Your task to perform on an android device: Go to battery settings Image 0: 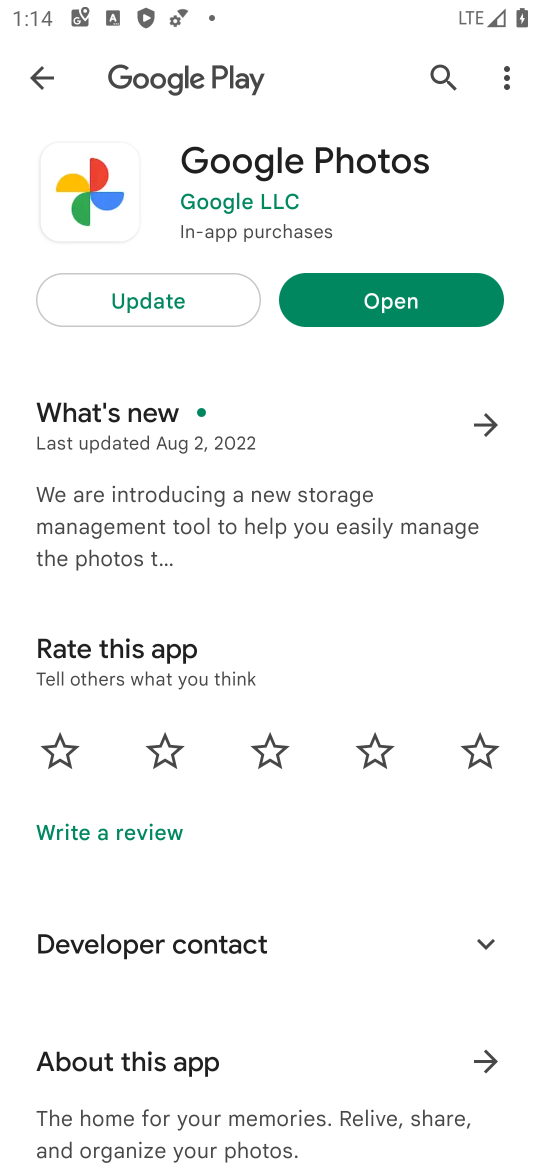
Step 0: press home button
Your task to perform on an android device: Go to battery settings Image 1: 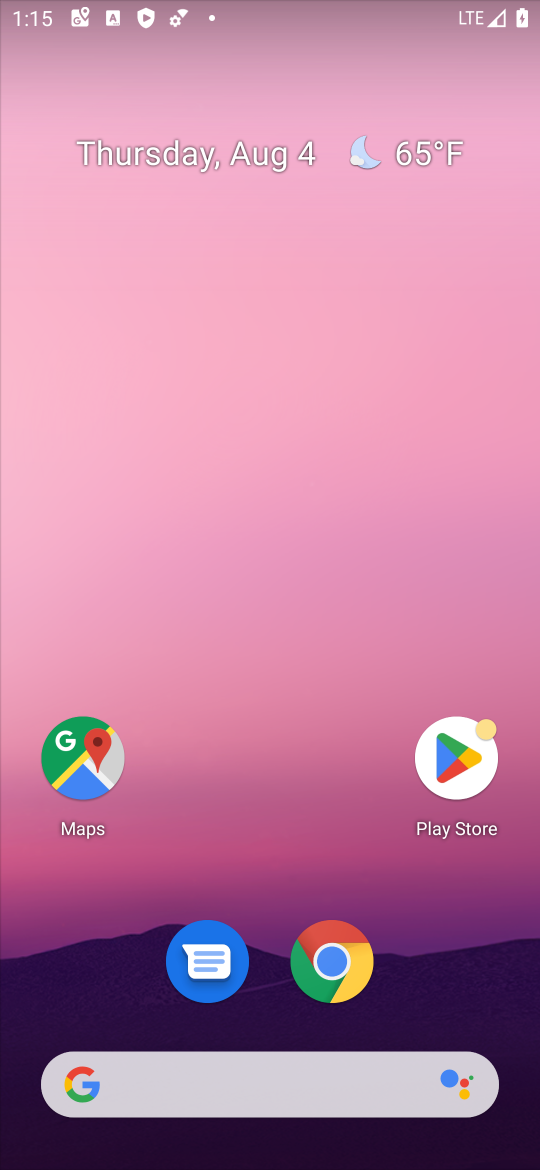
Step 1: drag from (309, 545) to (337, 0)
Your task to perform on an android device: Go to battery settings Image 2: 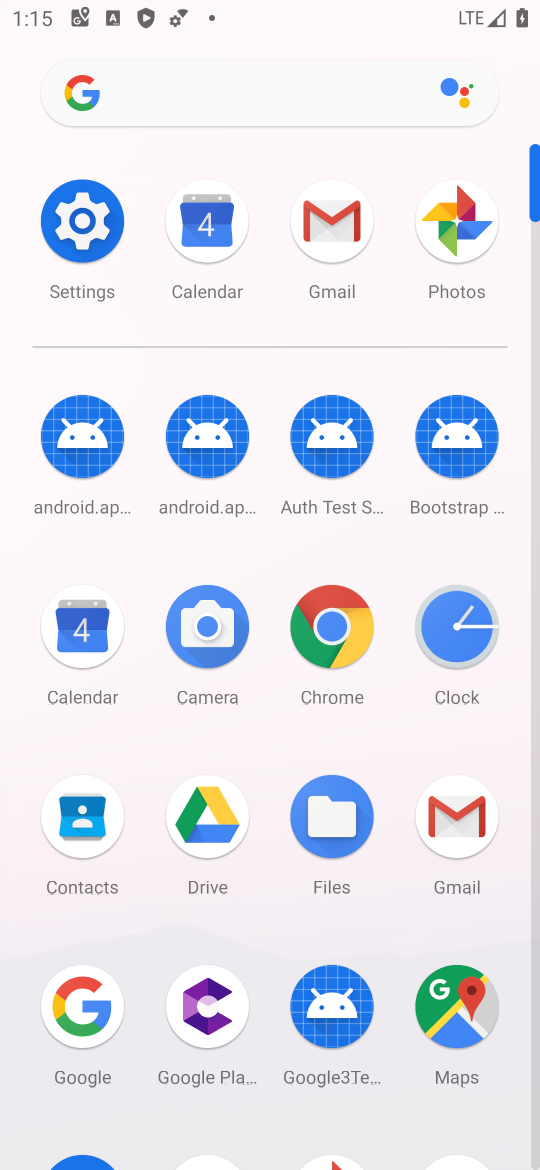
Step 2: click (92, 233)
Your task to perform on an android device: Go to battery settings Image 3: 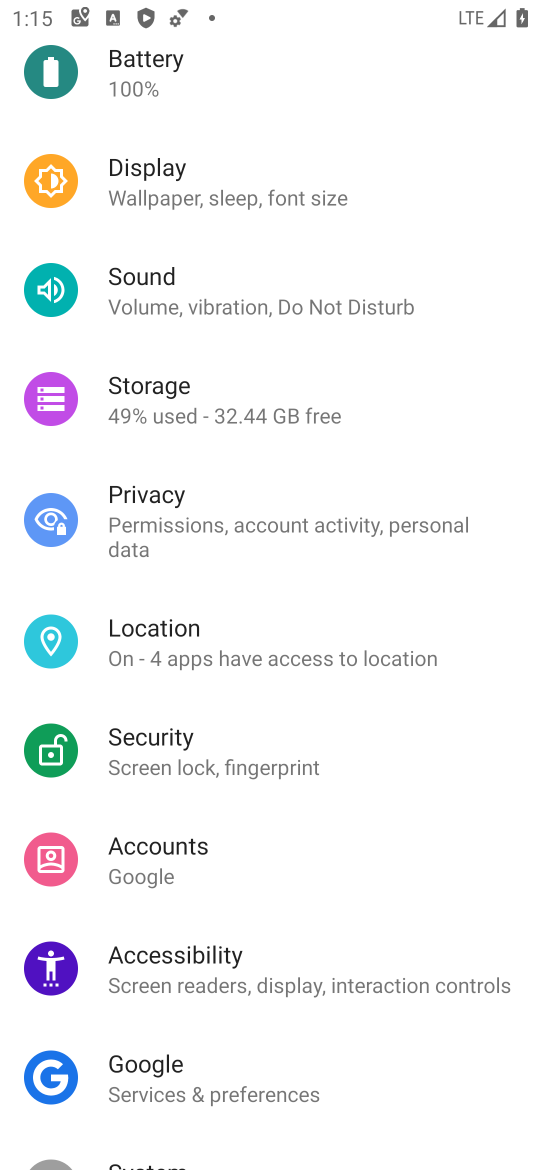
Step 3: click (147, 67)
Your task to perform on an android device: Go to battery settings Image 4: 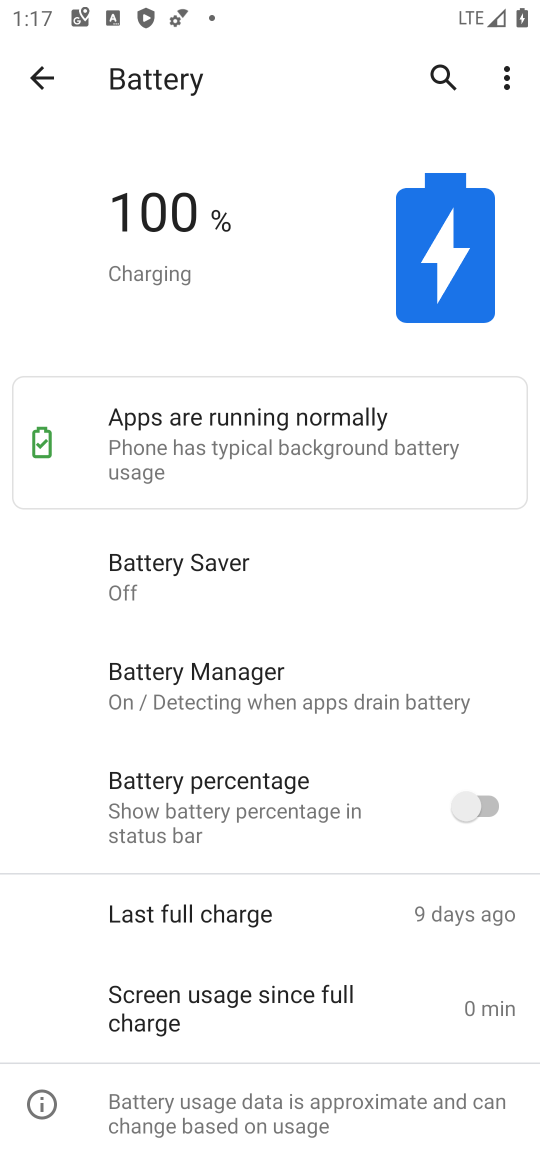
Step 4: task complete